Your task to perform on an android device: Is it going to rain today? Image 0: 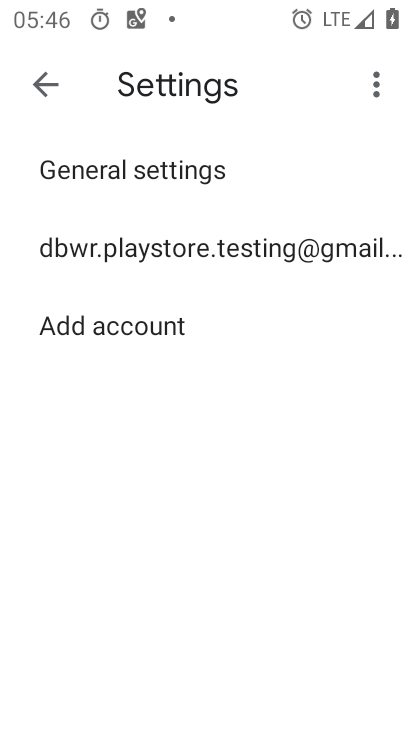
Step 0: press home button
Your task to perform on an android device: Is it going to rain today? Image 1: 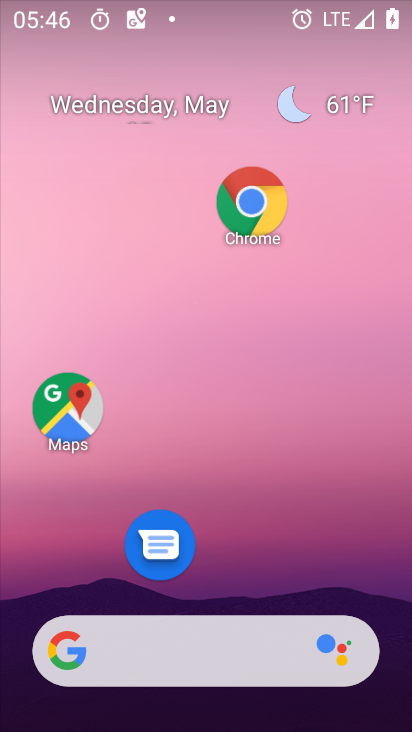
Step 1: drag from (214, 617) to (214, 370)
Your task to perform on an android device: Is it going to rain today? Image 2: 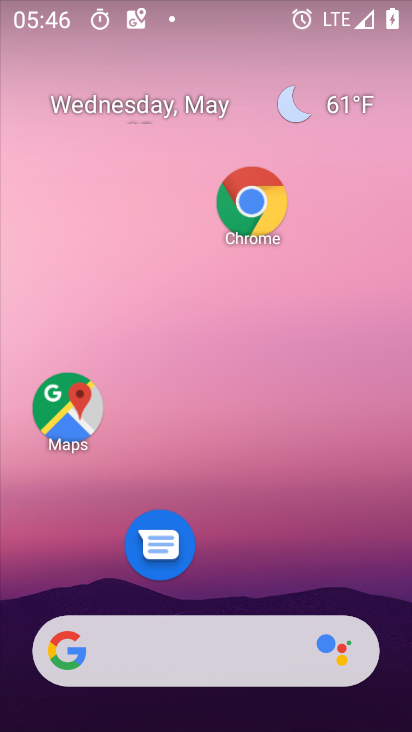
Step 2: drag from (193, 563) to (212, 219)
Your task to perform on an android device: Is it going to rain today? Image 3: 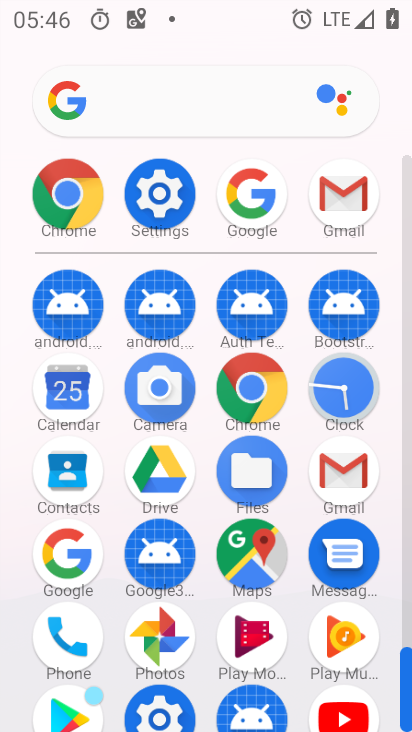
Step 3: click (253, 202)
Your task to perform on an android device: Is it going to rain today? Image 4: 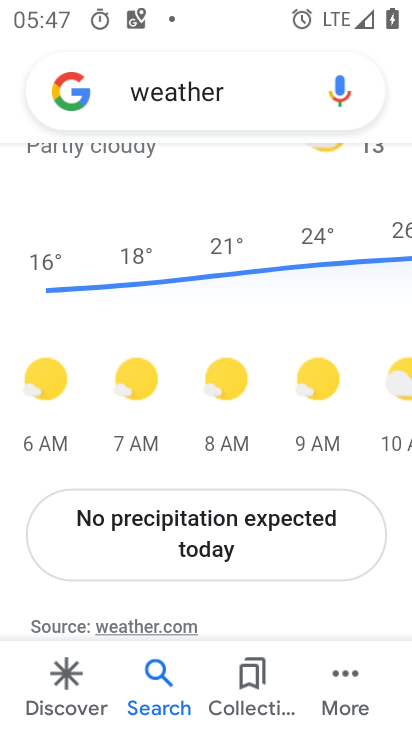
Step 4: task complete